Your task to perform on an android device: Search for seafood restaurants on Google Maps Image 0: 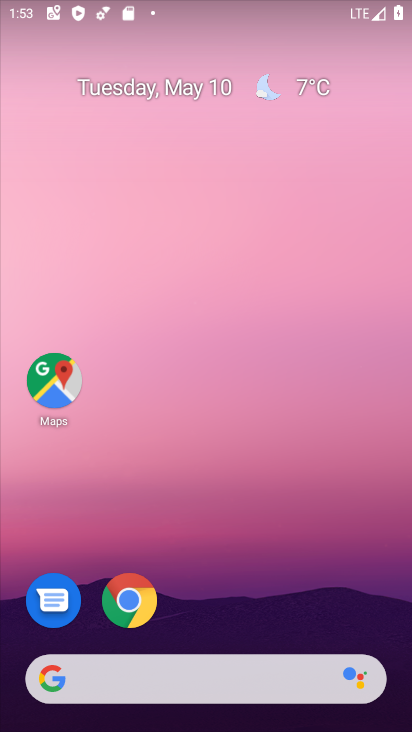
Step 0: drag from (182, 677) to (330, 68)
Your task to perform on an android device: Search for seafood restaurants on Google Maps Image 1: 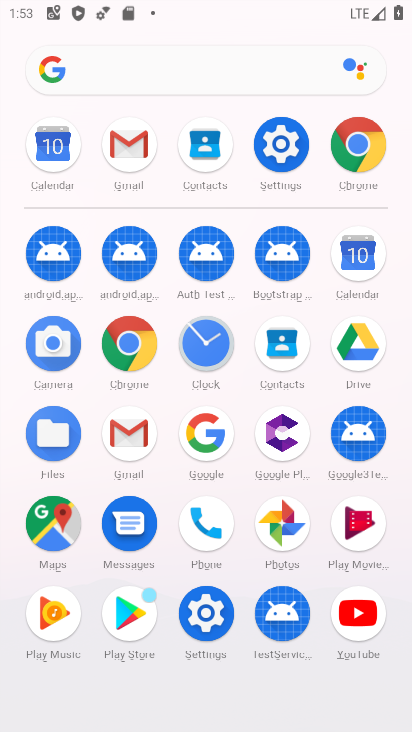
Step 1: click (52, 527)
Your task to perform on an android device: Search for seafood restaurants on Google Maps Image 2: 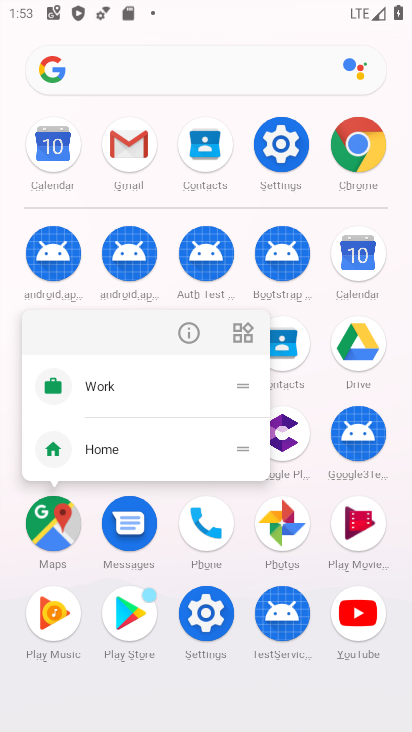
Step 2: click (52, 527)
Your task to perform on an android device: Search for seafood restaurants on Google Maps Image 3: 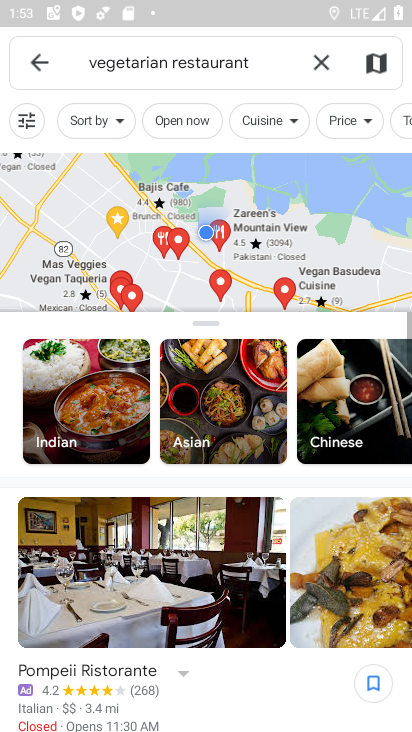
Step 3: click (320, 63)
Your task to perform on an android device: Search for seafood restaurants on Google Maps Image 4: 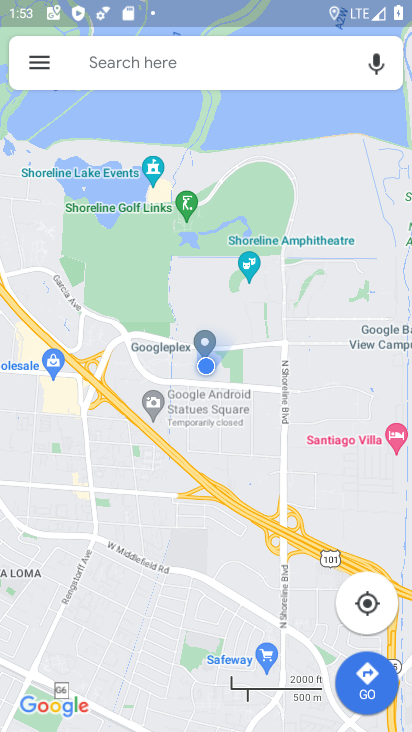
Step 4: click (225, 67)
Your task to perform on an android device: Search for seafood restaurants on Google Maps Image 5: 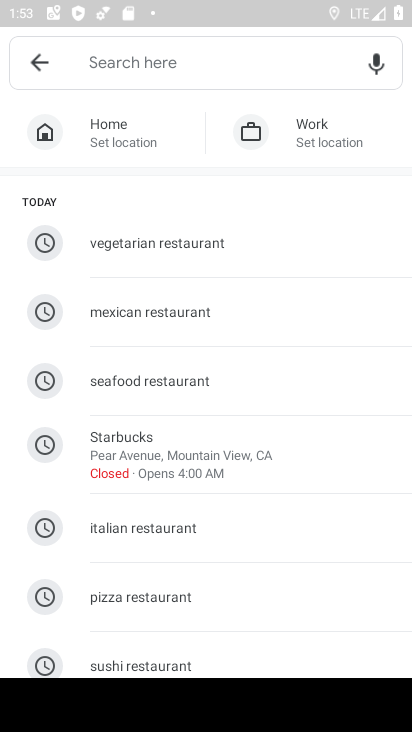
Step 5: click (159, 381)
Your task to perform on an android device: Search for seafood restaurants on Google Maps Image 6: 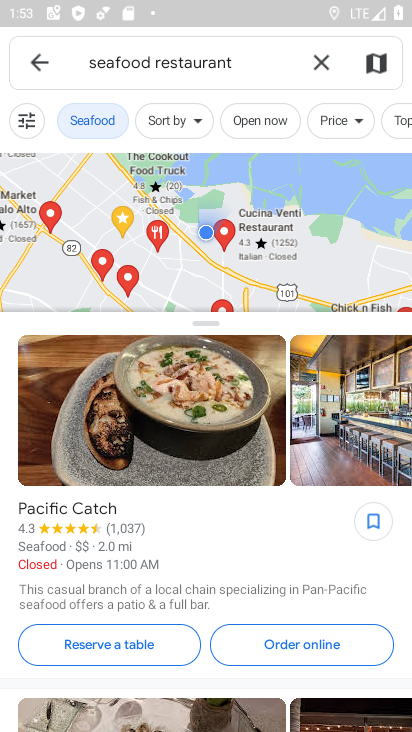
Step 6: task complete